Your task to perform on an android device: add a contact Image 0: 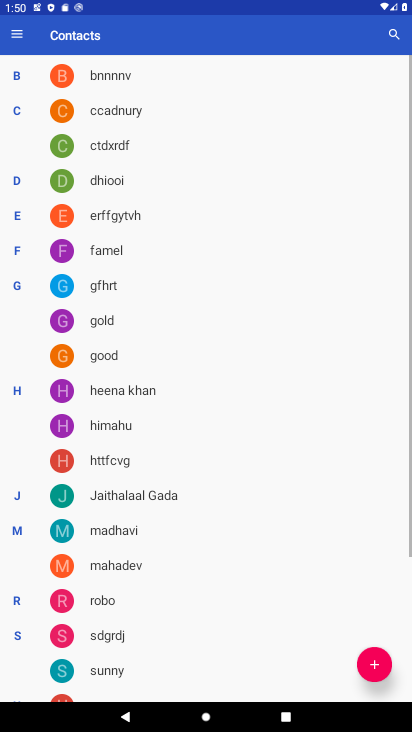
Step 0: click (211, 7)
Your task to perform on an android device: add a contact Image 1: 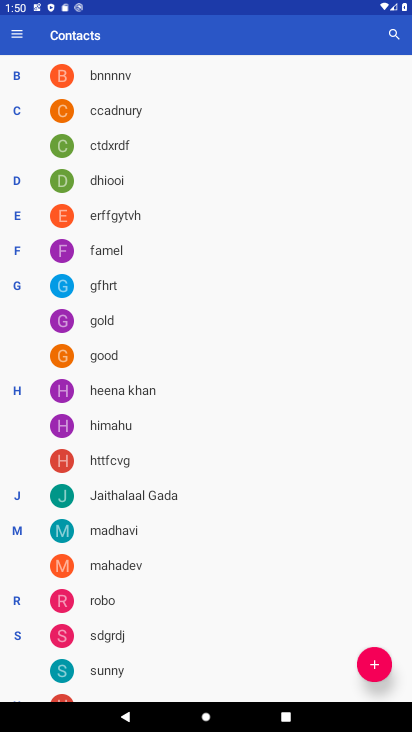
Step 1: click (369, 659)
Your task to perform on an android device: add a contact Image 2: 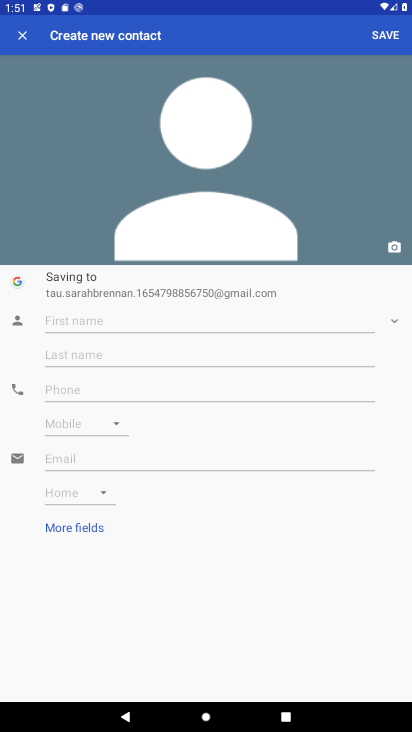
Step 2: click (162, 313)
Your task to perform on an android device: add a contact Image 3: 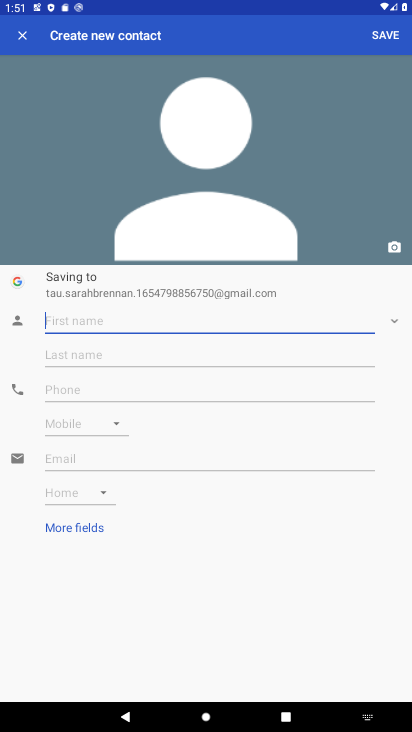
Step 3: type "oikjhgfd"
Your task to perform on an android device: add a contact Image 4: 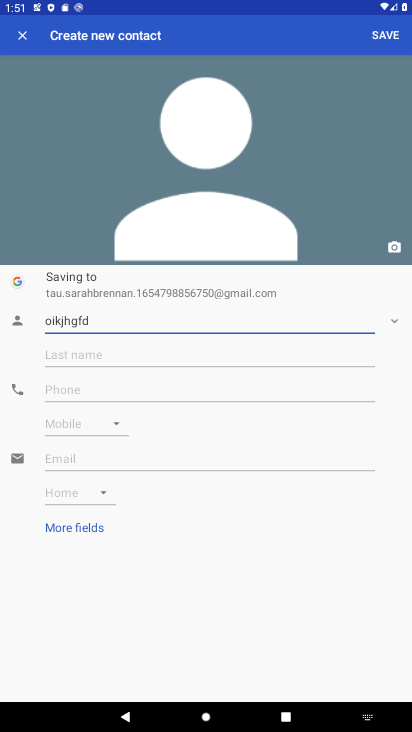
Step 4: click (68, 386)
Your task to perform on an android device: add a contact Image 5: 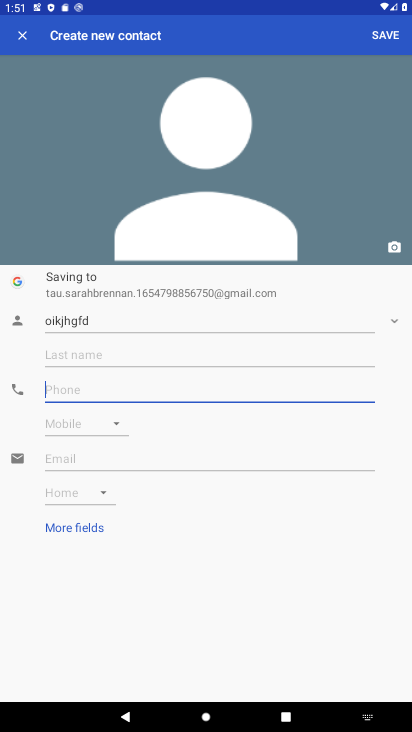
Step 5: type "23456789876"
Your task to perform on an android device: add a contact Image 6: 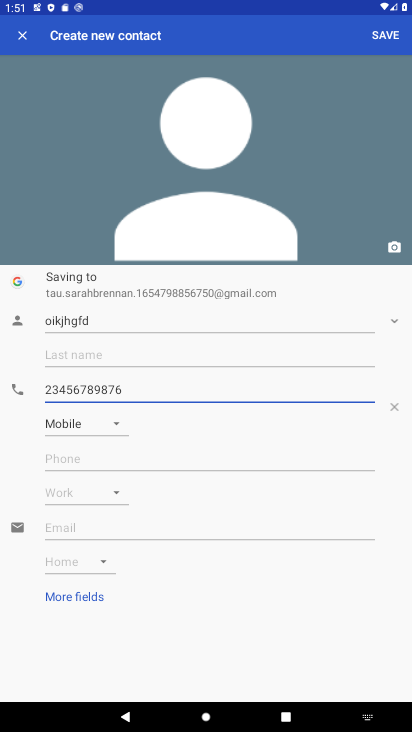
Step 6: click (384, 38)
Your task to perform on an android device: add a contact Image 7: 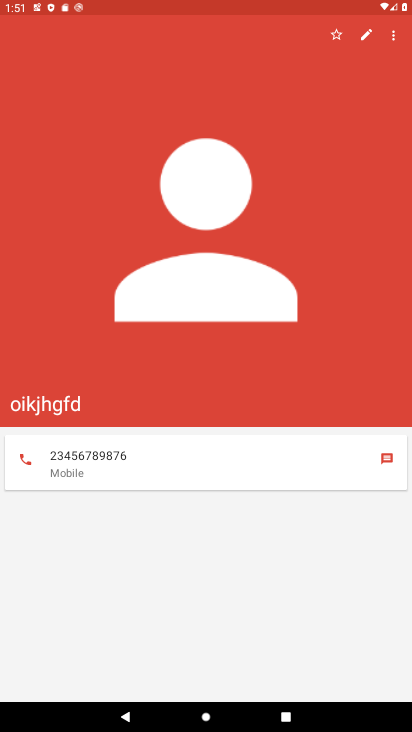
Step 7: task complete